Your task to perform on an android device: allow cookies in the chrome app Image 0: 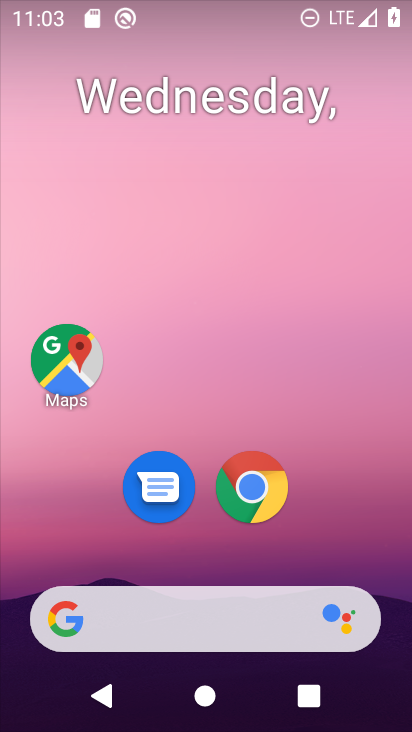
Step 0: click (254, 483)
Your task to perform on an android device: allow cookies in the chrome app Image 1: 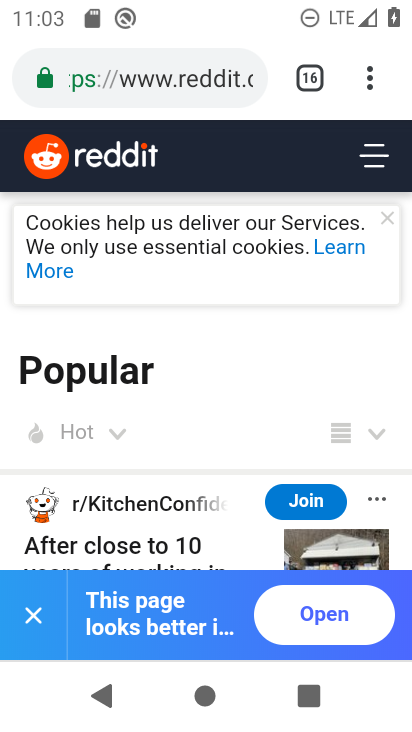
Step 1: click (364, 75)
Your task to perform on an android device: allow cookies in the chrome app Image 2: 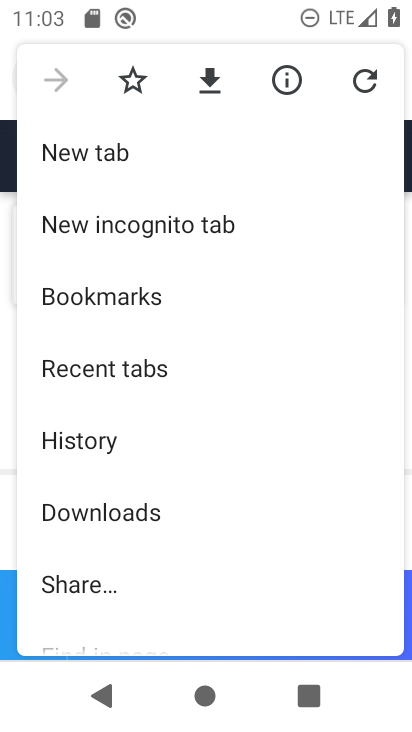
Step 2: drag from (272, 469) to (252, 0)
Your task to perform on an android device: allow cookies in the chrome app Image 3: 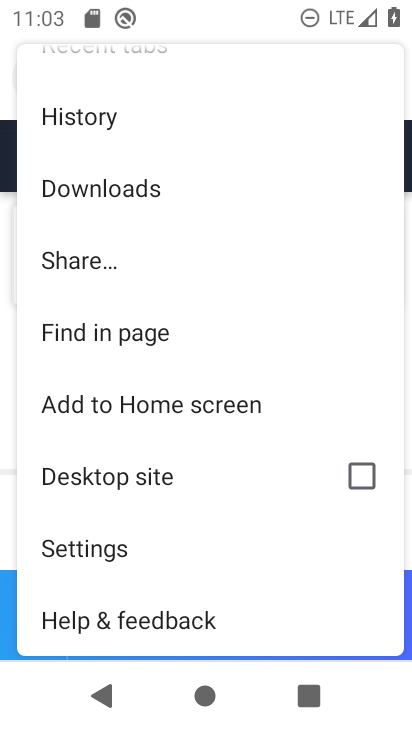
Step 3: click (87, 543)
Your task to perform on an android device: allow cookies in the chrome app Image 4: 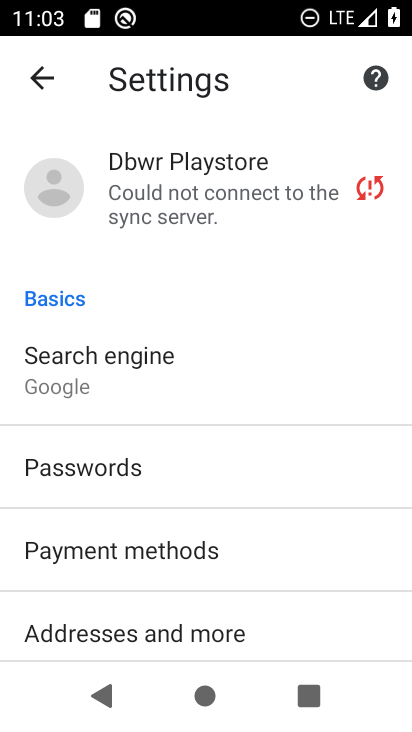
Step 4: drag from (257, 541) to (234, 277)
Your task to perform on an android device: allow cookies in the chrome app Image 5: 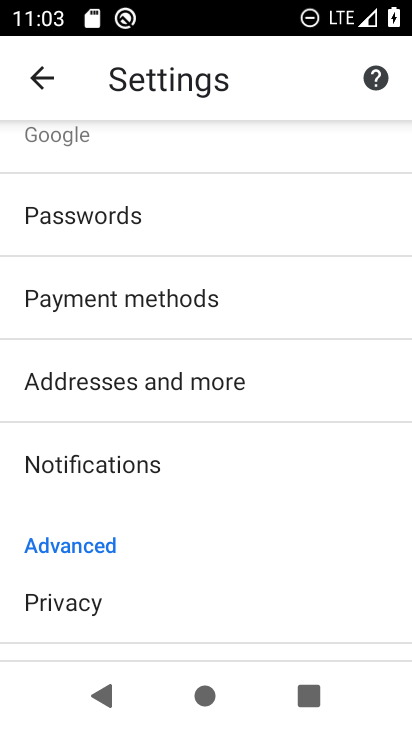
Step 5: click (225, 209)
Your task to perform on an android device: allow cookies in the chrome app Image 6: 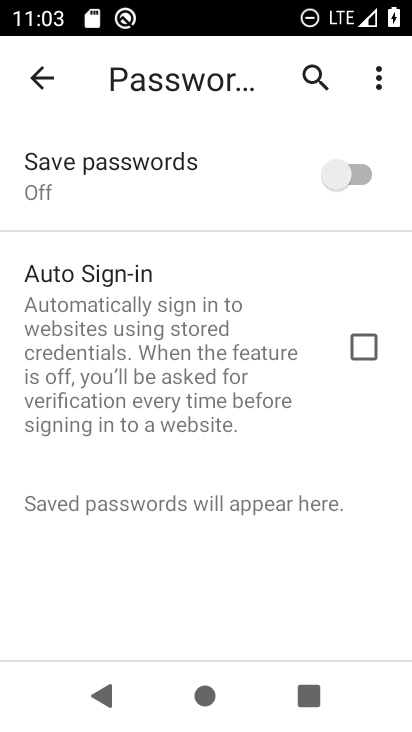
Step 6: click (43, 77)
Your task to perform on an android device: allow cookies in the chrome app Image 7: 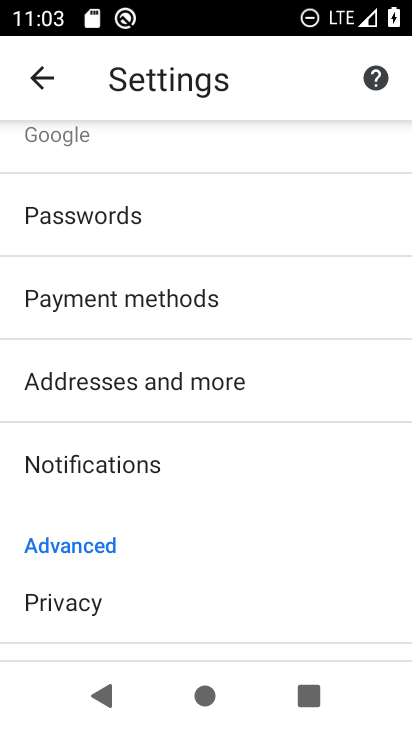
Step 7: drag from (249, 539) to (200, 236)
Your task to perform on an android device: allow cookies in the chrome app Image 8: 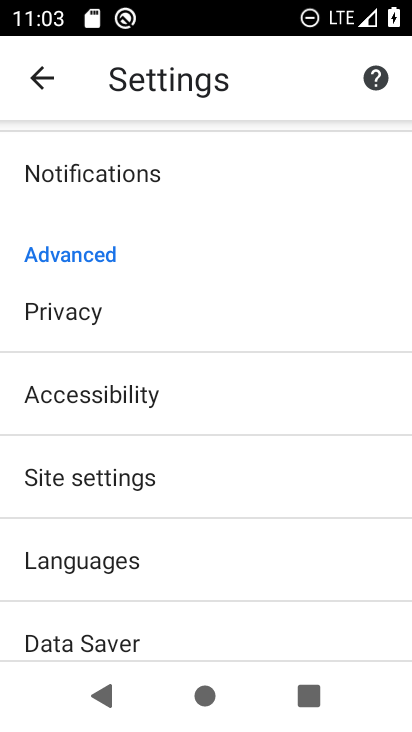
Step 8: click (80, 468)
Your task to perform on an android device: allow cookies in the chrome app Image 9: 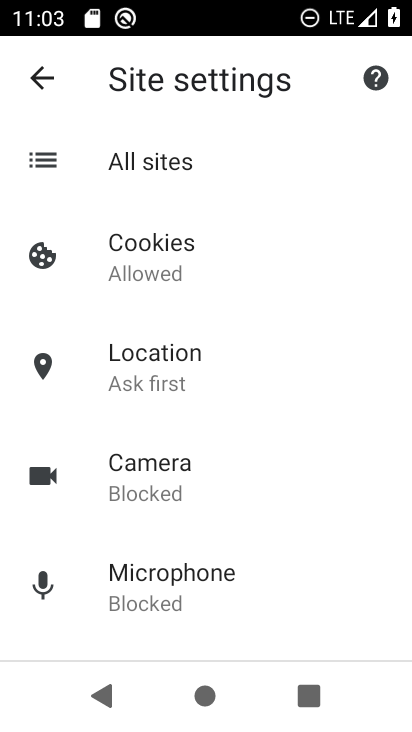
Step 9: click (151, 243)
Your task to perform on an android device: allow cookies in the chrome app Image 10: 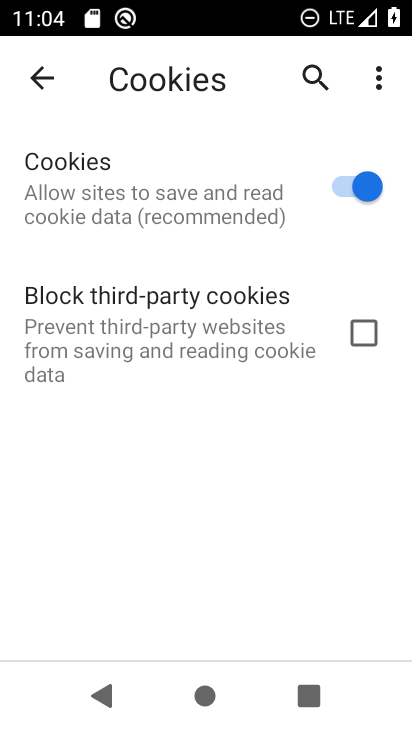
Step 10: task complete